Your task to perform on an android device: Open calendar and show me the first week of next month Image 0: 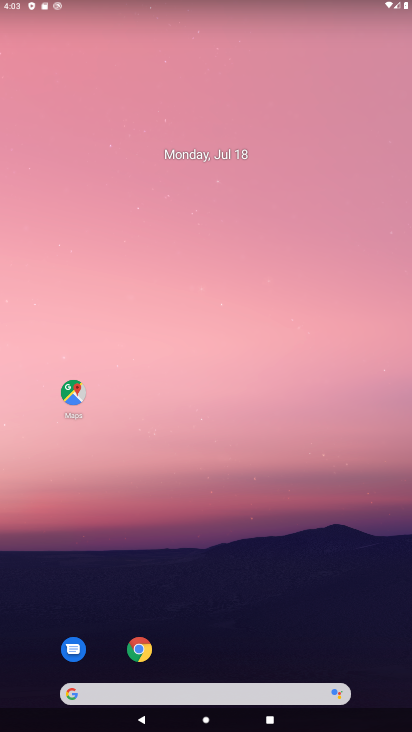
Step 0: click (193, 167)
Your task to perform on an android device: Open calendar and show me the first week of next month Image 1: 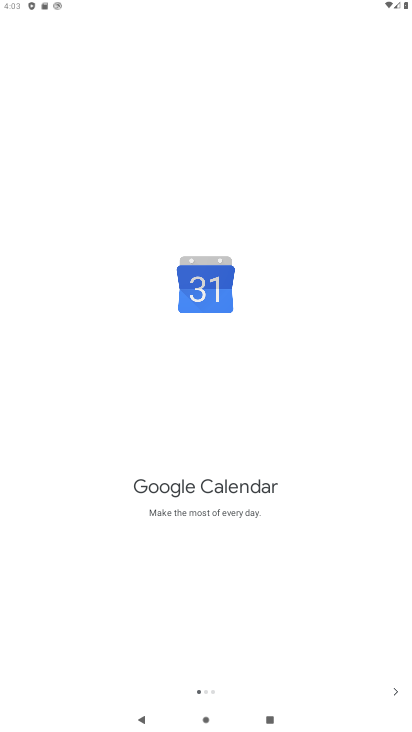
Step 1: click (406, 692)
Your task to perform on an android device: Open calendar and show me the first week of next month Image 2: 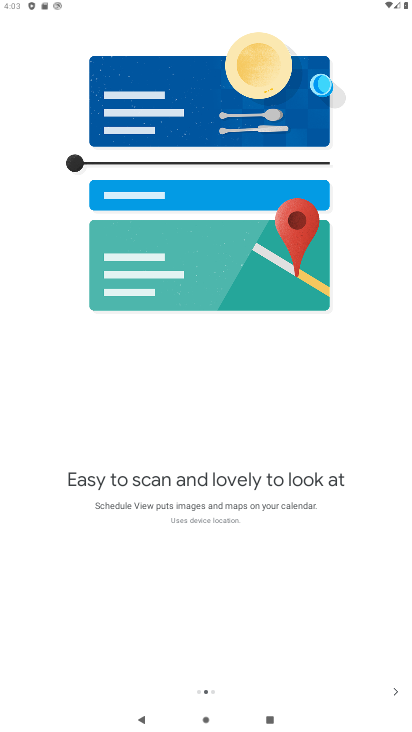
Step 2: click (406, 692)
Your task to perform on an android device: Open calendar and show me the first week of next month Image 3: 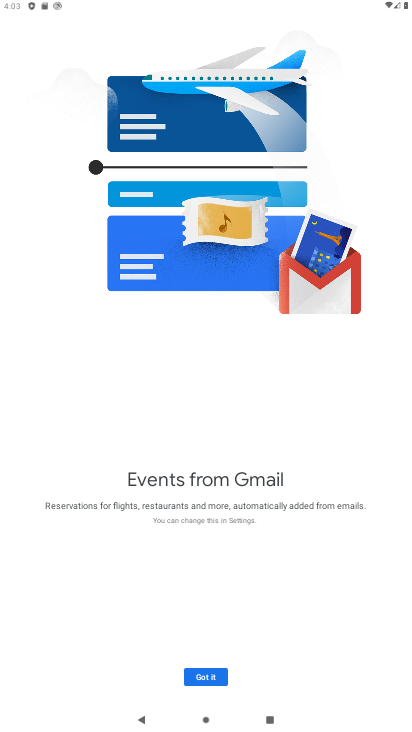
Step 3: click (197, 681)
Your task to perform on an android device: Open calendar and show me the first week of next month Image 4: 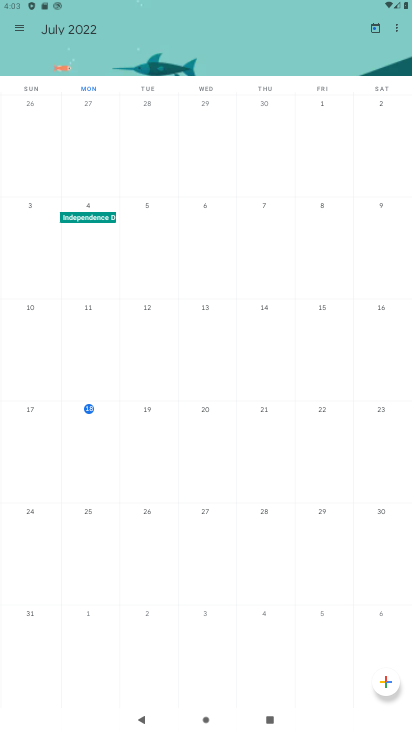
Step 4: click (23, 20)
Your task to perform on an android device: Open calendar and show me the first week of next month Image 5: 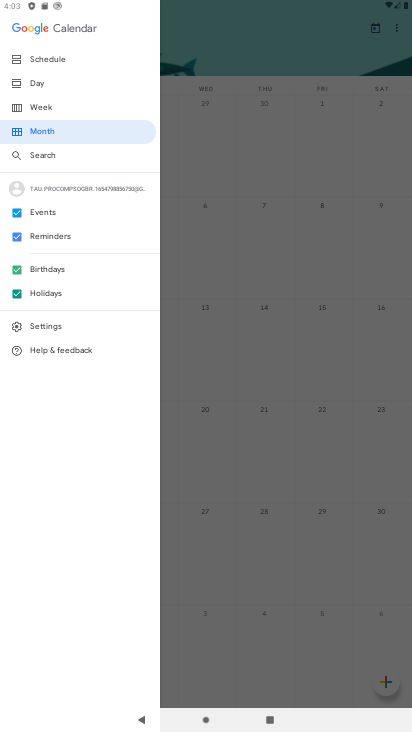
Step 5: click (47, 105)
Your task to perform on an android device: Open calendar and show me the first week of next month Image 6: 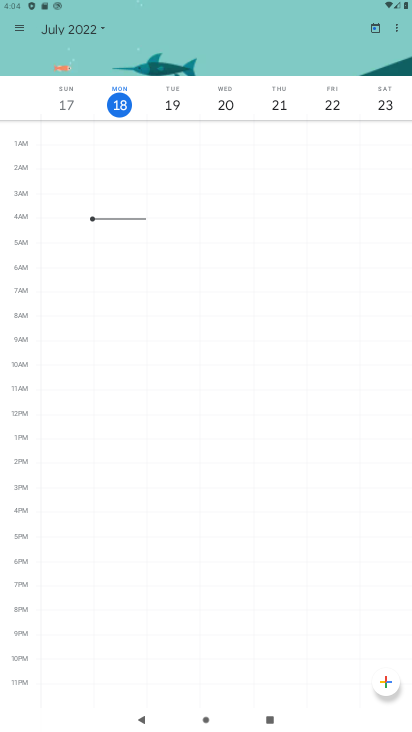
Step 6: click (101, 36)
Your task to perform on an android device: Open calendar and show me the first week of next month Image 7: 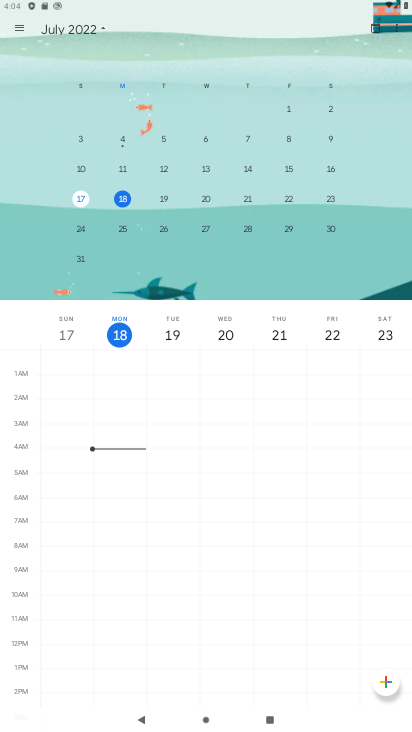
Step 7: drag from (370, 242) to (39, 257)
Your task to perform on an android device: Open calendar and show me the first week of next month Image 8: 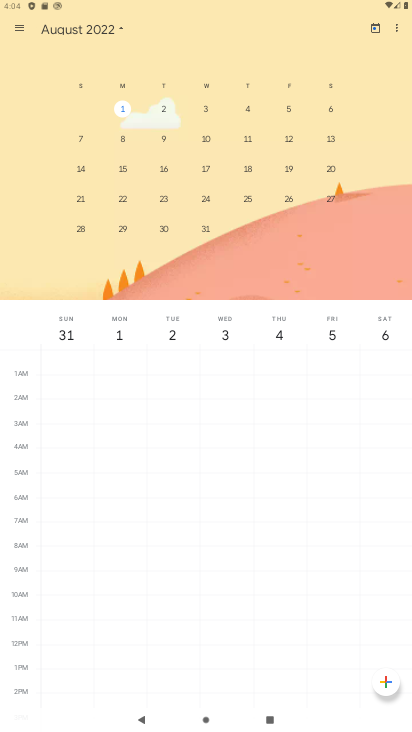
Step 8: click (286, 106)
Your task to perform on an android device: Open calendar and show me the first week of next month Image 9: 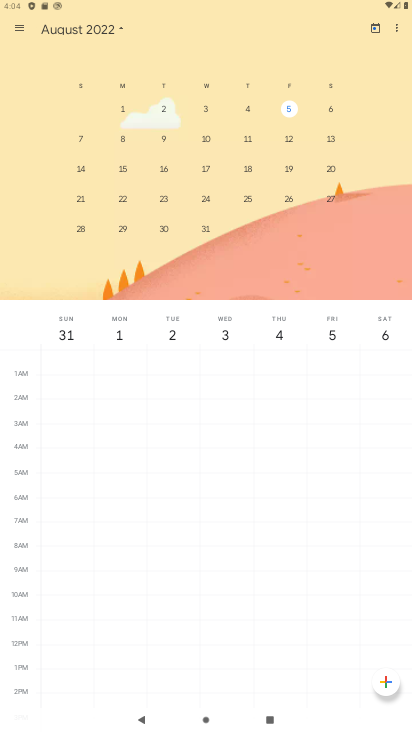
Step 9: task complete